Your task to perform on an android device: What is the news today? Image 0: 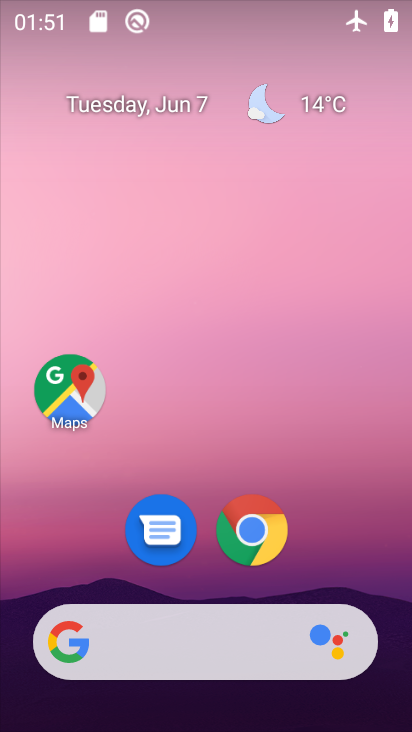
Step 0: click (248, 532)
Your task to perform on an android device: What is the news today? Image 1: 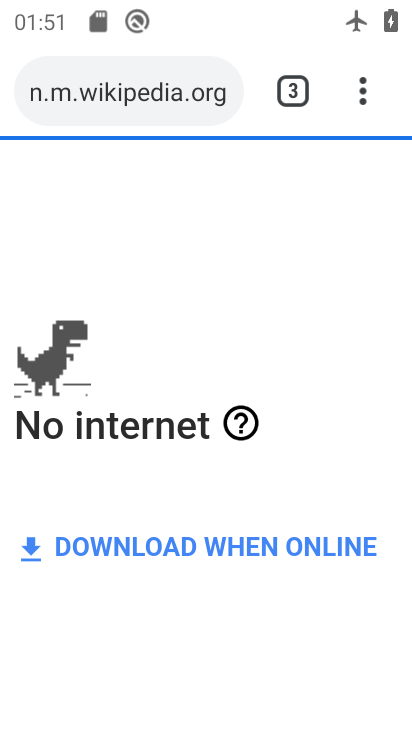
Step 1: click (372, 69)
Your task to perform on an android device: What is the news today? Image 2: 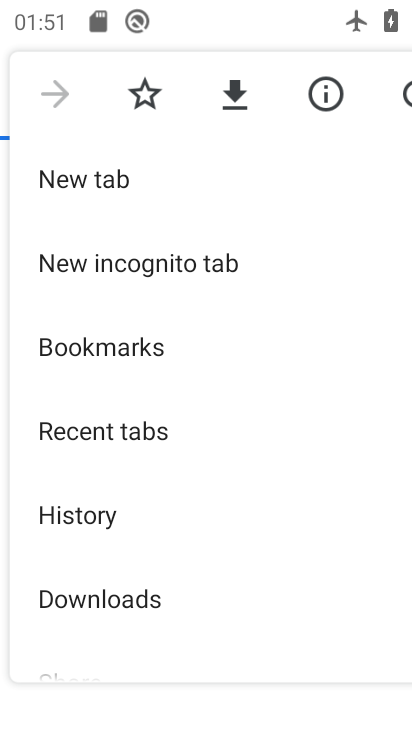
Step 2: click (136, 198)
Your task to perform on an android device: What is the news today? Image 3: 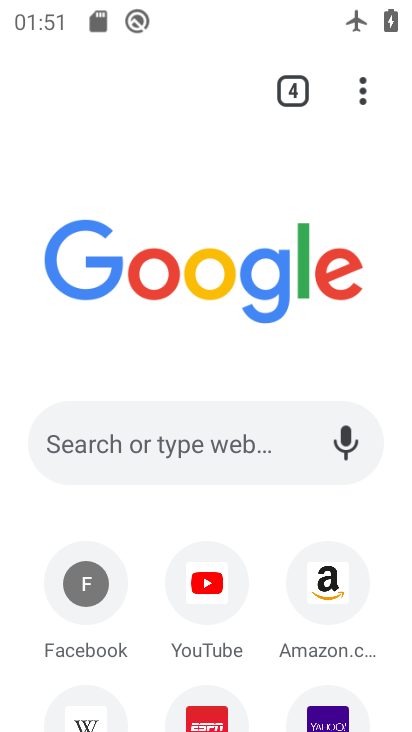
Step 3: click (189, 446)
Your task to perform on an android device: What is the news today? Image 4: 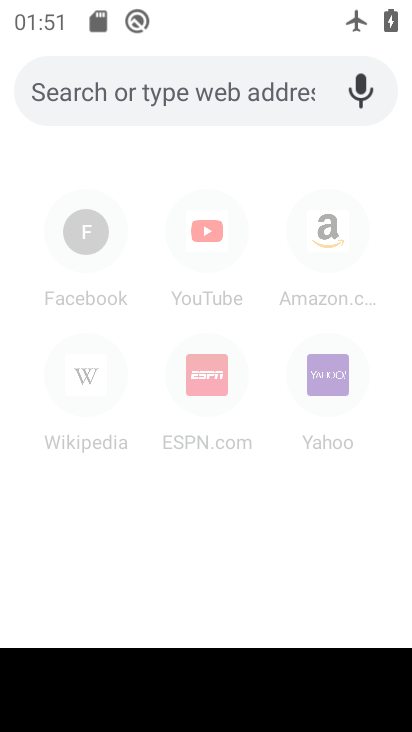
Step 4: type "What is the news today?"
Your task to perform on an android device: What is the news today? Image 5: 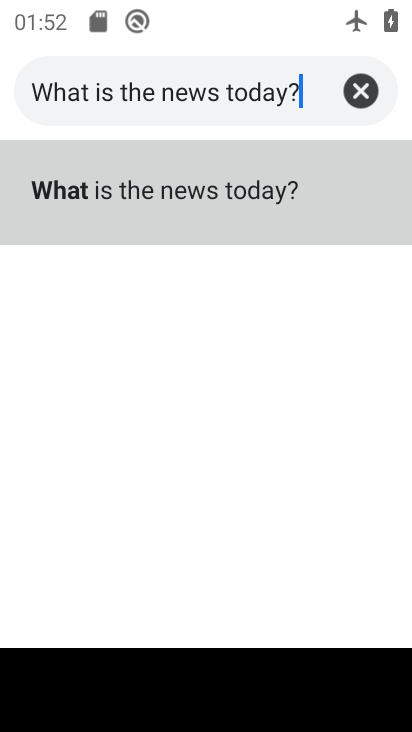
Step 5: click (154, 200)
Your task to perform on an android device: What is the news today? Image 6: 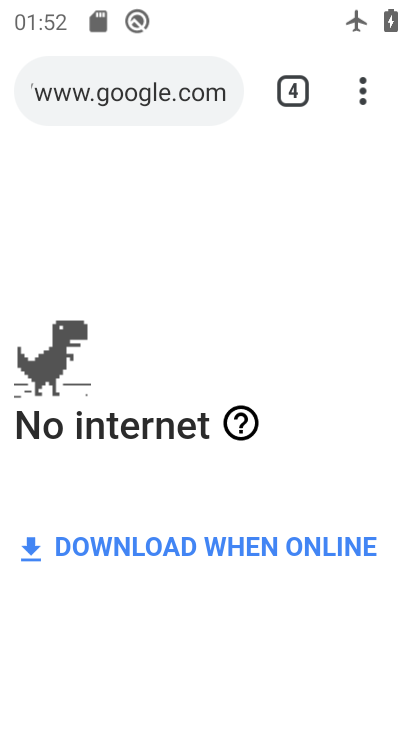
Step 6: task complete